Your task to perform on an android device: Check the news Image 0: 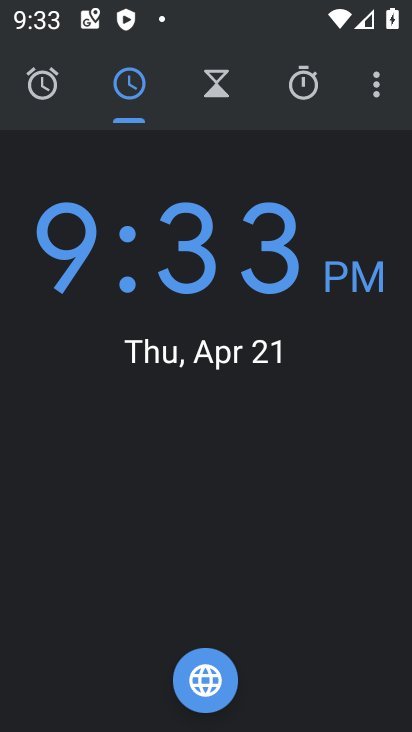
Step 0: press home button
Your task to perform on an android device: Check the news Image 1: 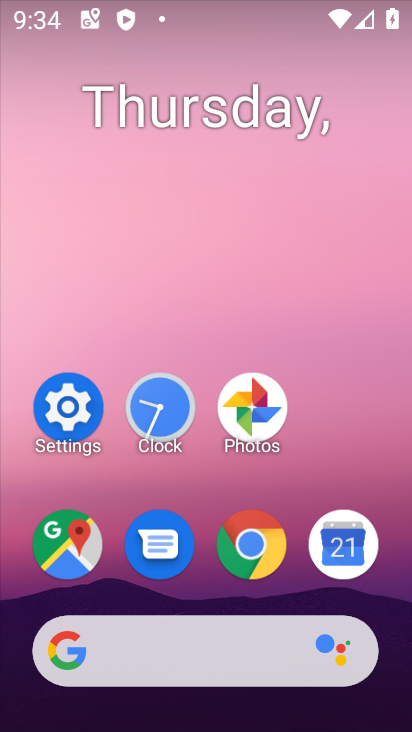
Step 1: task complete